Your task to perform on an android device: Go to internet settings Image 0: 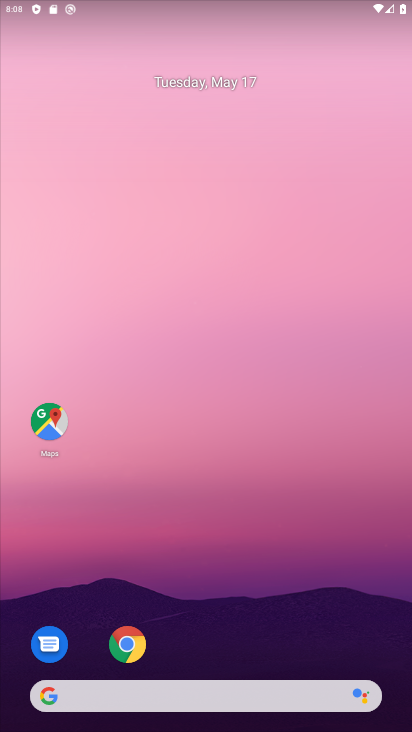
Step 0: drag from (244, 606) to (254, 88)
Your task to perform on an android device: Go to internet settings Image 1: 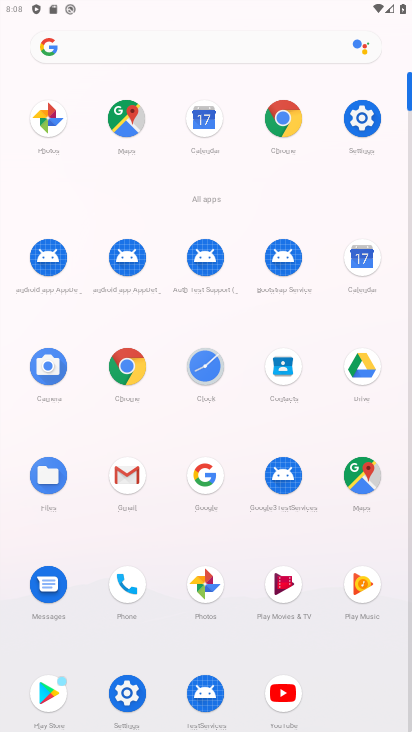
Step 1: click (358, 113)
Your task to perform on an android device: Go to internet settings Image 2: 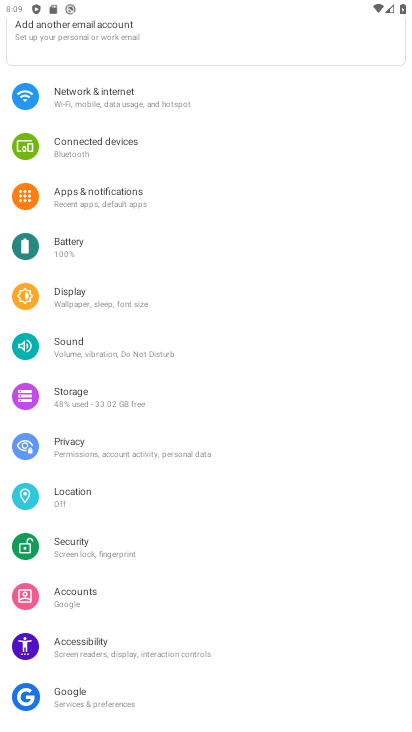
Step 2: click (120, 92)
Your task to perform on an android device: Go to internet settings Image 3: 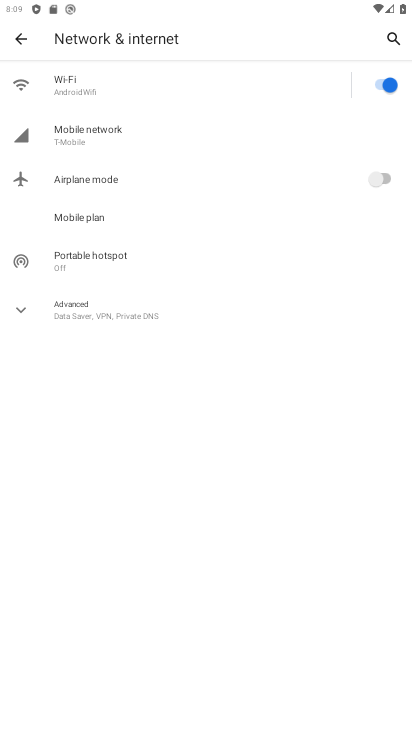
Step 3: task complete